Your task to perform on an android device: Turn off the flashlight Image 0: 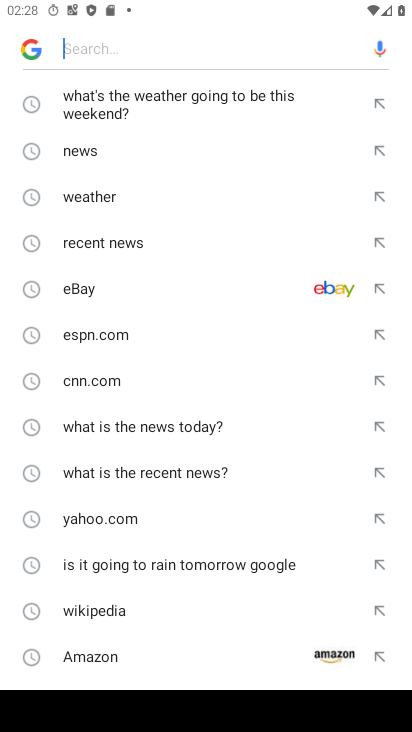
Step 0: press back button
Your task to perform on an android device: Turn off the flashlight Image 1: 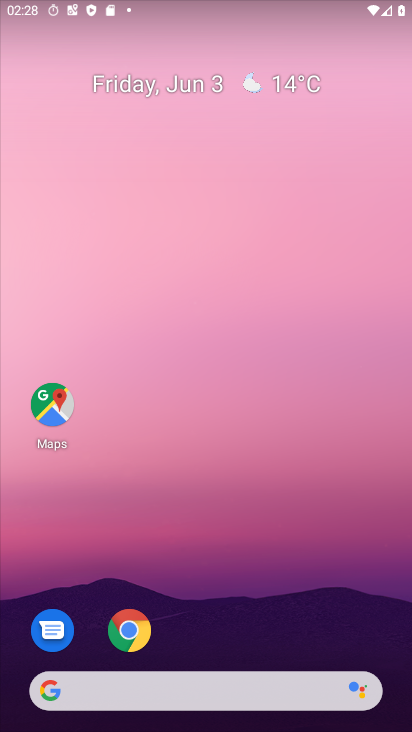
Step 1: drag from (402, 706) to (330, 264)
Your task to perform on an android device: Turn off the flashlight Image 2: 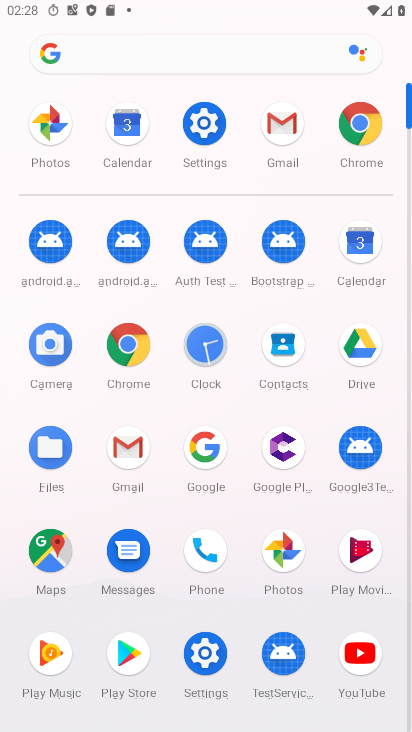
Step 2: click (211, 124)
Your task to perform on an android device: Turn off the flashlight Image 3: 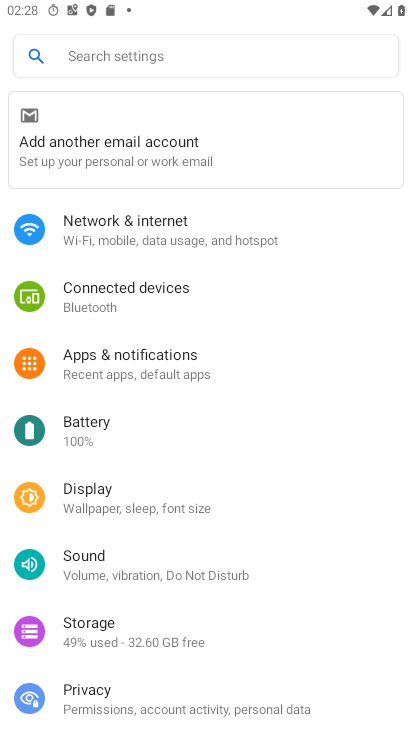
Step 3: click (149, 221)
Your task to perform on an android device: Turn off the flashlight Image 4: 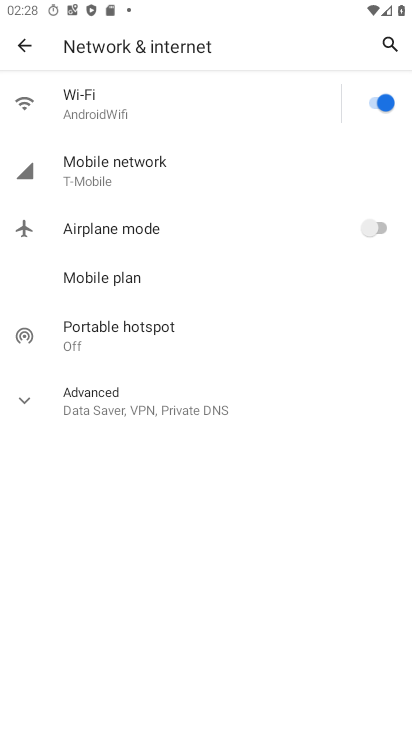
Step 4: click (22, 43)
Your task to perform on an android device: Turn off the flashlight Image 5: 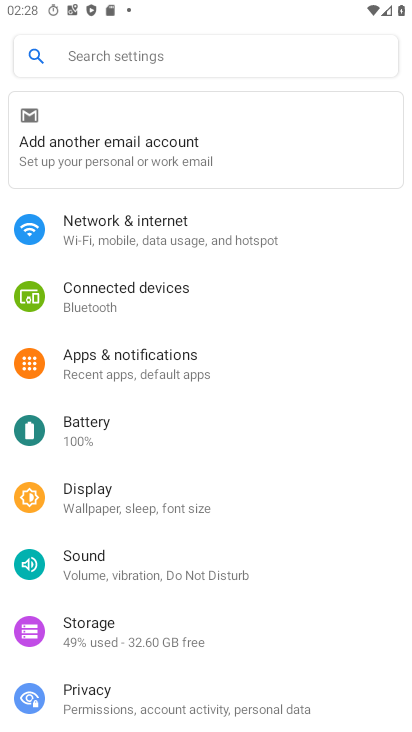
Step 5: click (136, 500)
Your task to perform on an android device: Turn off the flashlight Image 6: 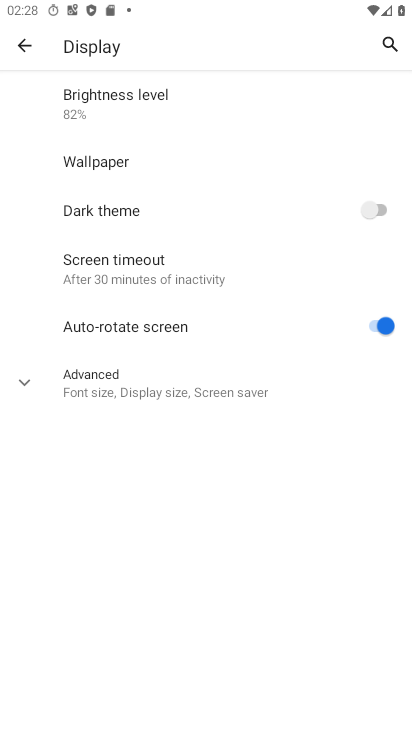
Step 6: task complete